Your task to perform on an android device: Show me popular videos on Youtube Image 0: 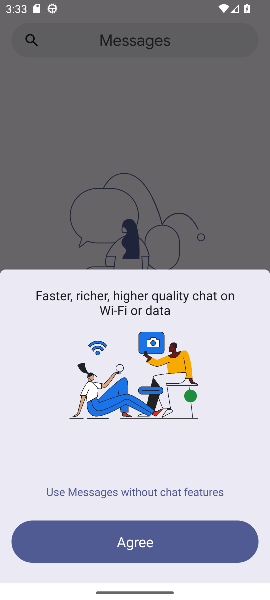
Step 0: press home button
Your task to perform on an android device: Show me popular videos on Youtube Image 1: 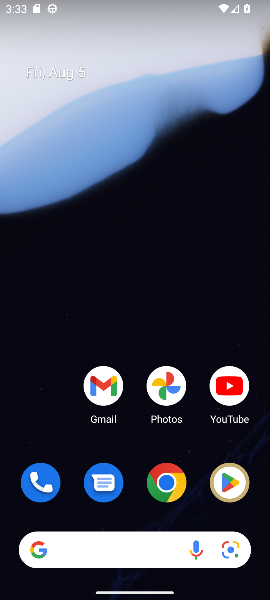
Step 1: click (227, 382)
Your task to perform on an android device: Show me popular videos on Youtube Image 2: 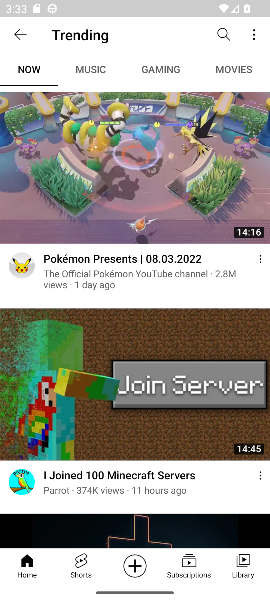
Step 2: click (27, 34)
Your task to perform on an android device: Show me popular videos on Youtube Image 3: 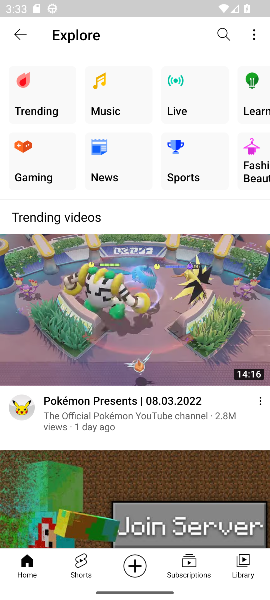
Step 3: click (30, 85)
Your task to perform on an android device: Show me popular videos on Youtube Image 4: 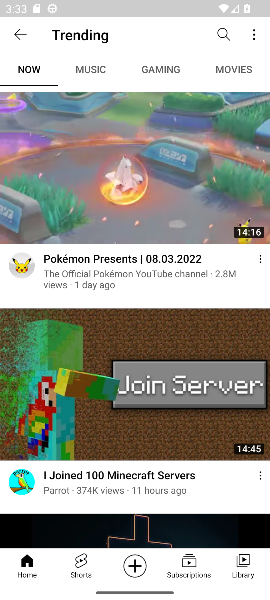
Step 4: task complete